Your task to perform on an android device: Add "beats solo 3" to the cart on target.com Image 0: 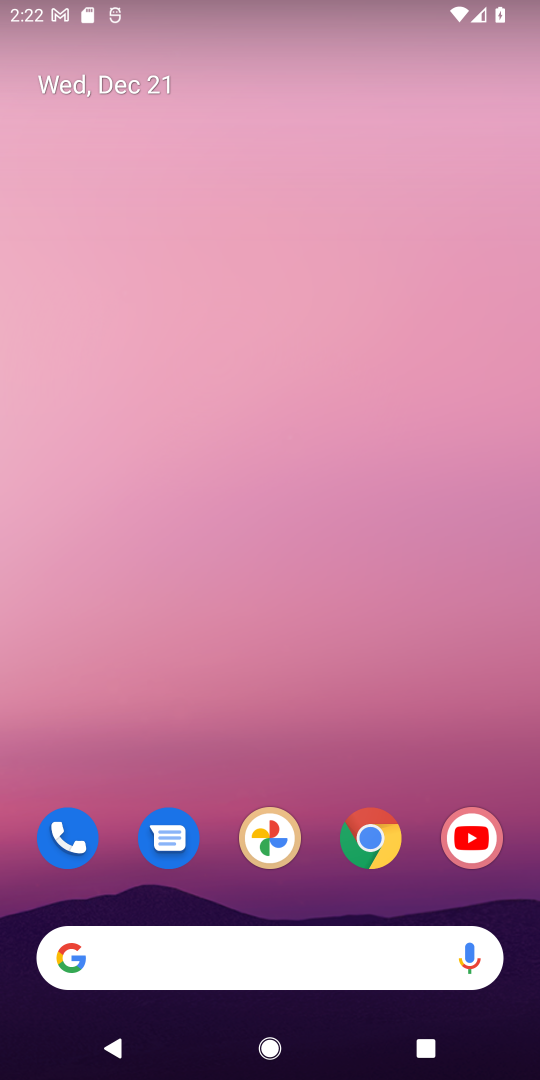
Step 0: click (366, 874)
Your task to perform on an android device: Add "beats solo 3" to the cart on target.com Image 1: 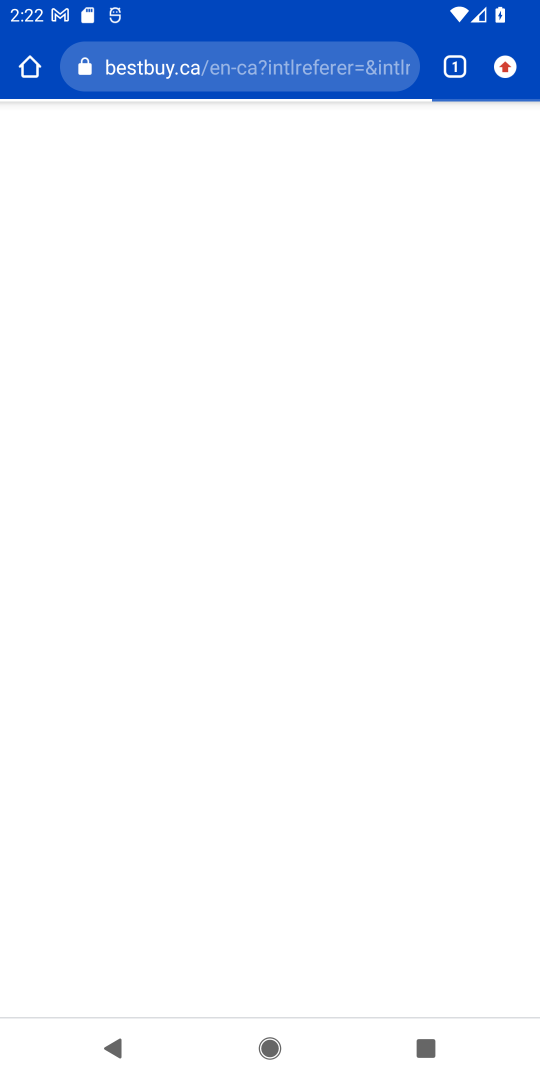
Step 1: click (261, 80)
Your task to perform on an android device: Add "beats solo 3" to the cart on target.com Image 2: 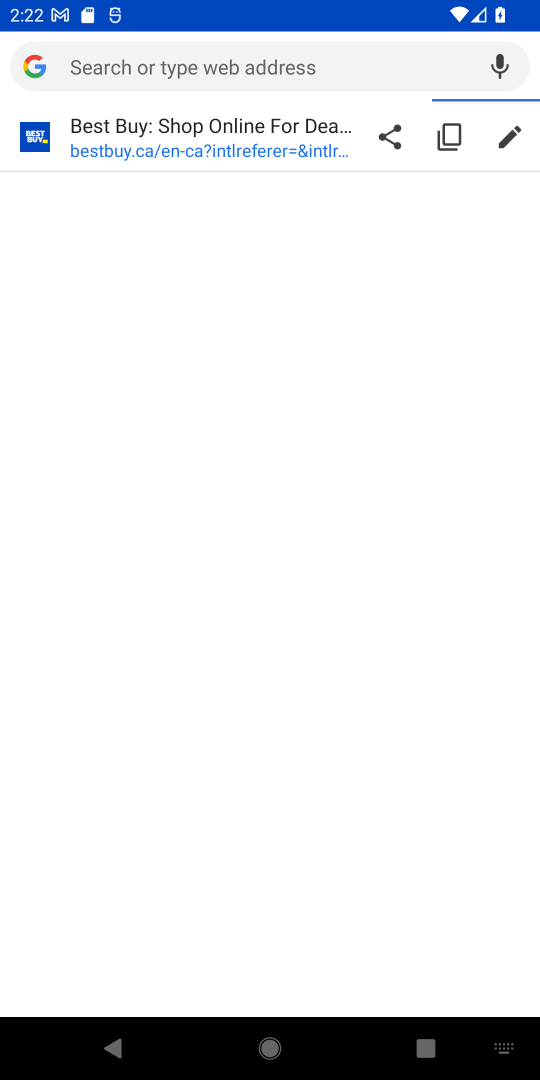
Step 2: type "target"
Your task to perform on an android device: Add "beats solo 3" to the cart on target.com Image 3: 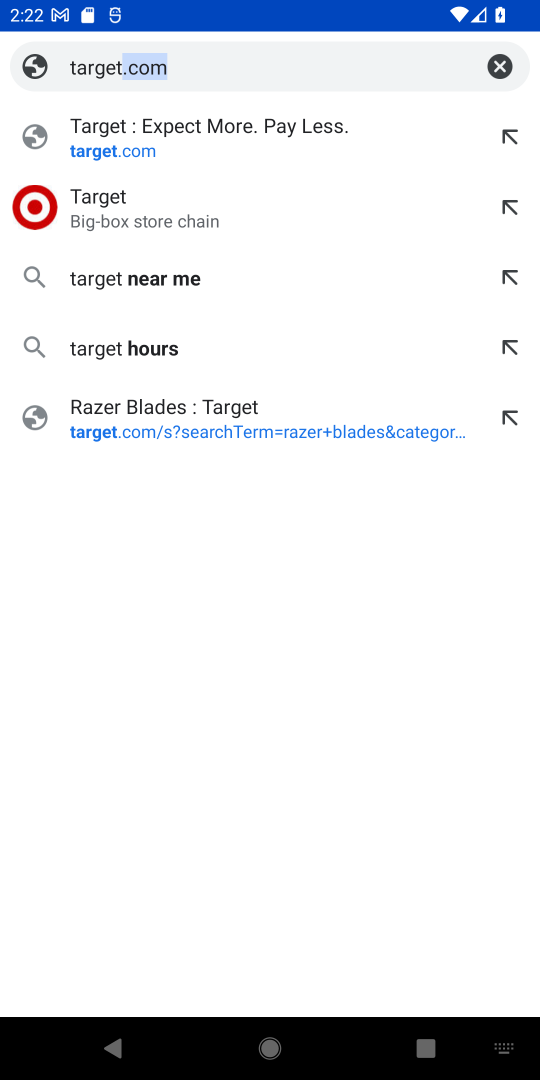
Step 3: click (114, 189)
Your task to perform on an android device: Add "beats solo 3" to the cart on target.com Image 4: 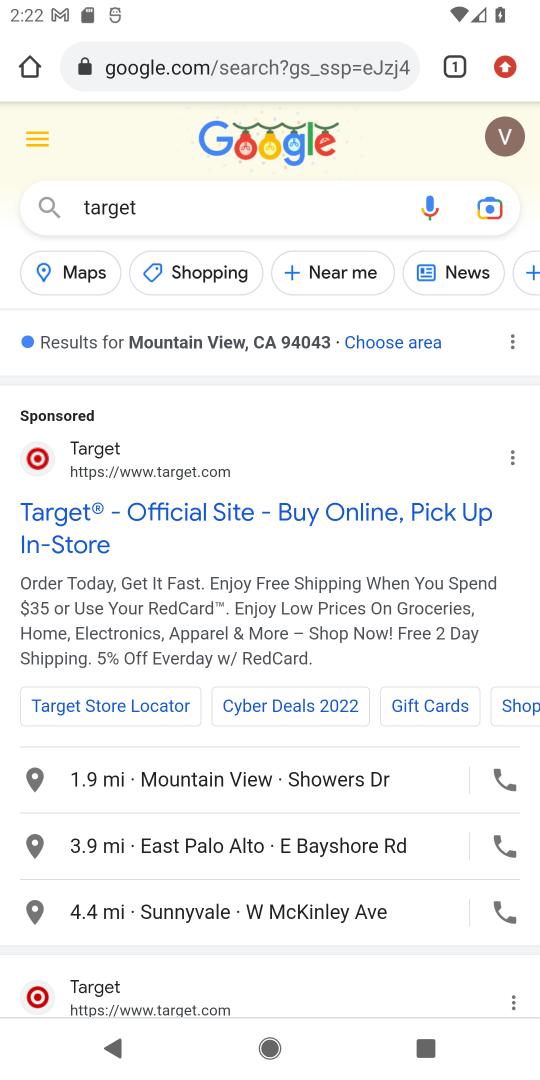
Step 4: click (107, 507)
Your task to perform on an android device: Add "beats solo 3" to the cart on target.com Image 5: 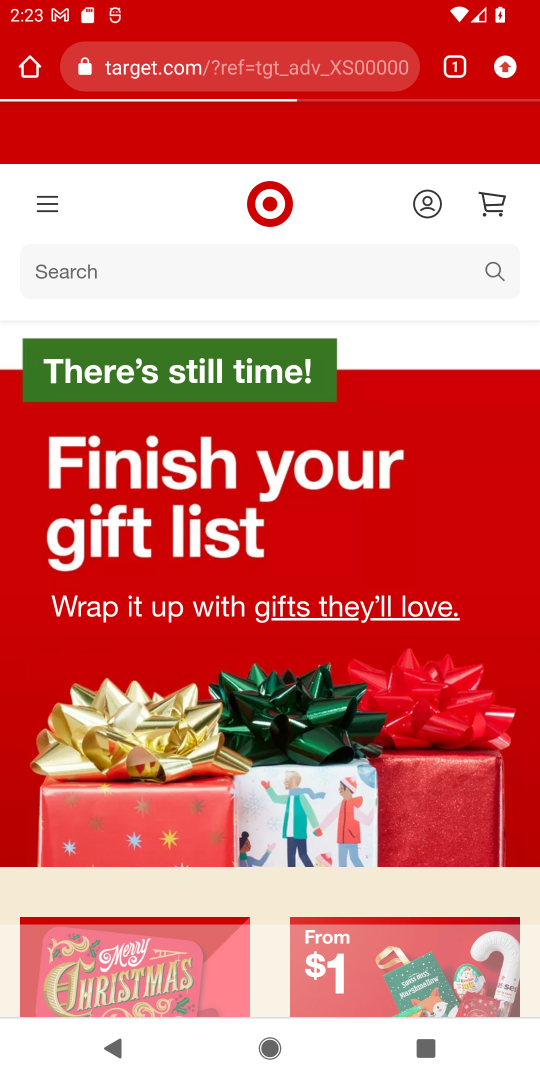
Step 5: click (164, 266)
Your task to perform on an android device: Add "beats solo 3" to the cart on target.com Image 6: 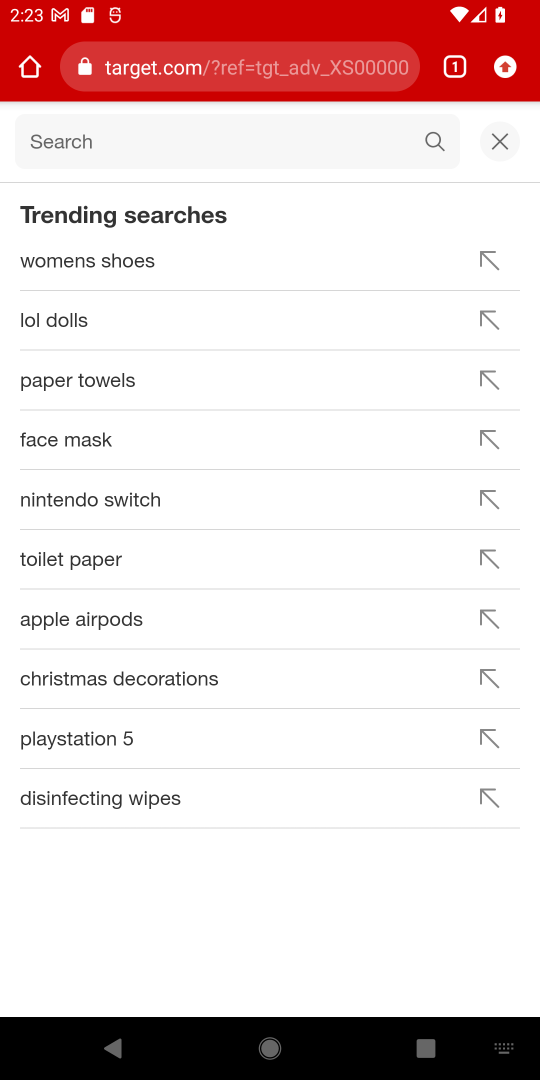
Step 6: type "beats solo 3"
Your task to perform on an android device: Add "beats solo 3" to the cart on target.com Image 7: 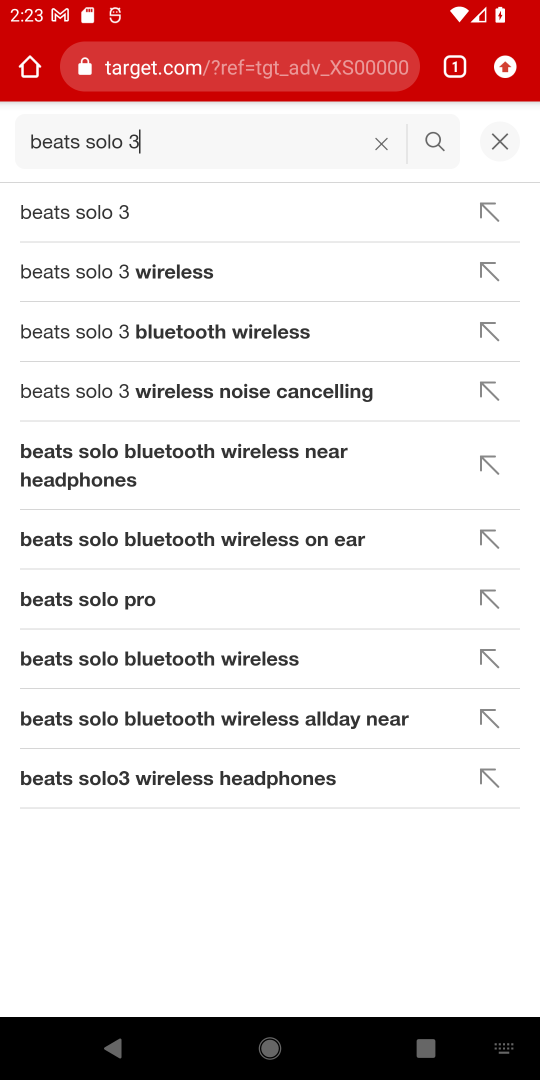
Step 7: click (135, 204)
Your task to perform on an android device: Add "beats solo 3" to the cart on target.com Image 8: 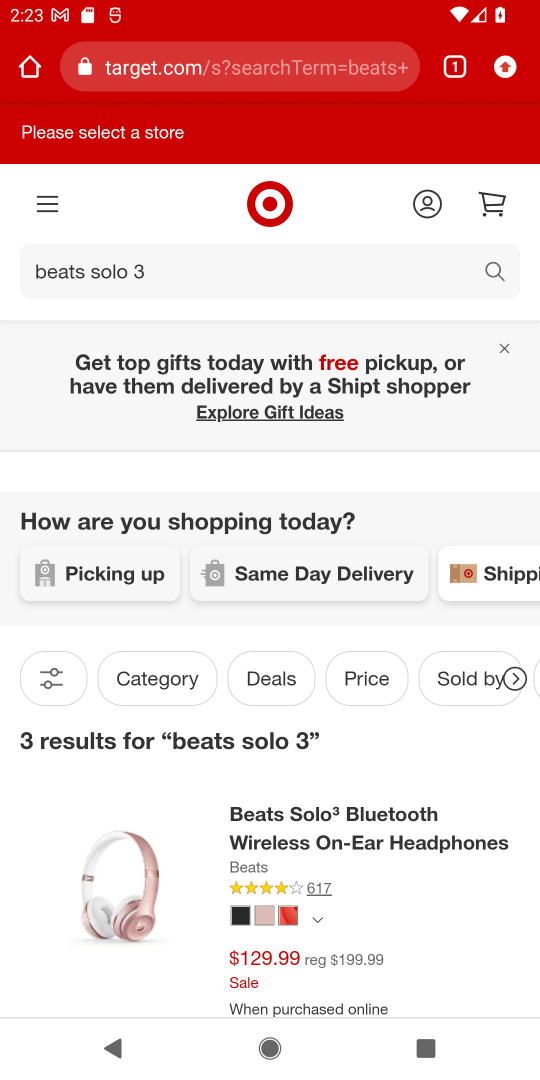
Step 8: click (270, 805)
Your task to perform on an android device: Add "beats solo 3" to the cart on target.com Image 9: 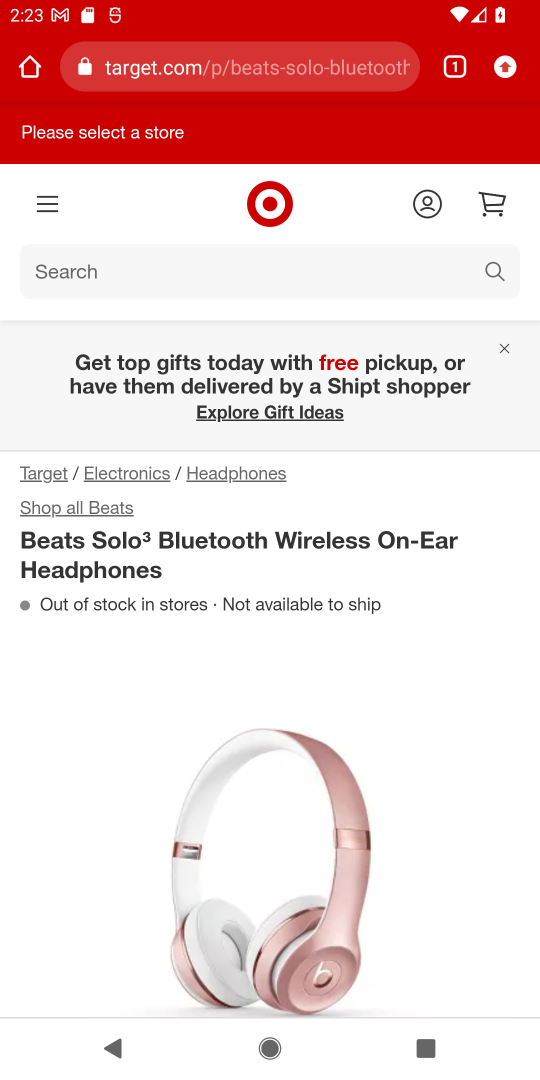
Step 9: drag from (356, 899) to (324, 404)
Your task to perform on an android device: Add "beats solo 3" to the cart on target.com Image 10: 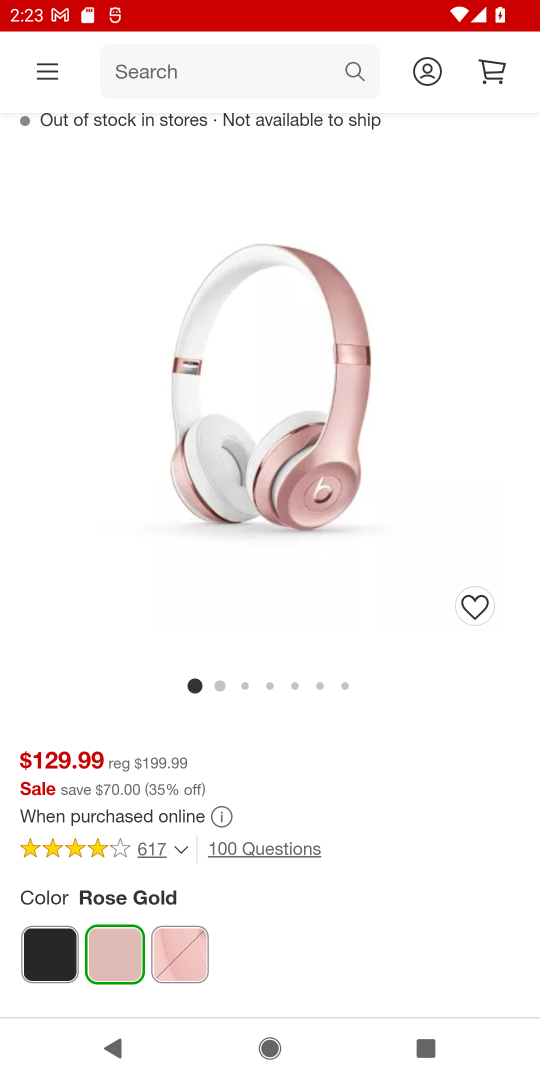
Step 10: drag from (340, 908) to (312, 439)
Your task to perform on an android device: Add "beats solo 3" to the cart on target.com Image 11: 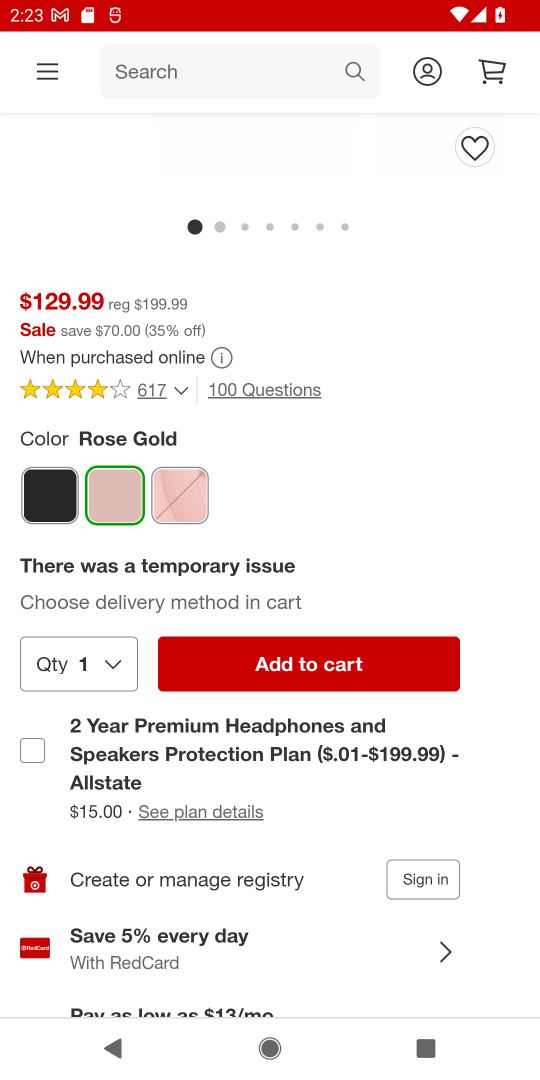
Step 11: click (343, 679)
Your task to perform on an android device: Add "beats solo 3" to the cart on target.com Image 12: 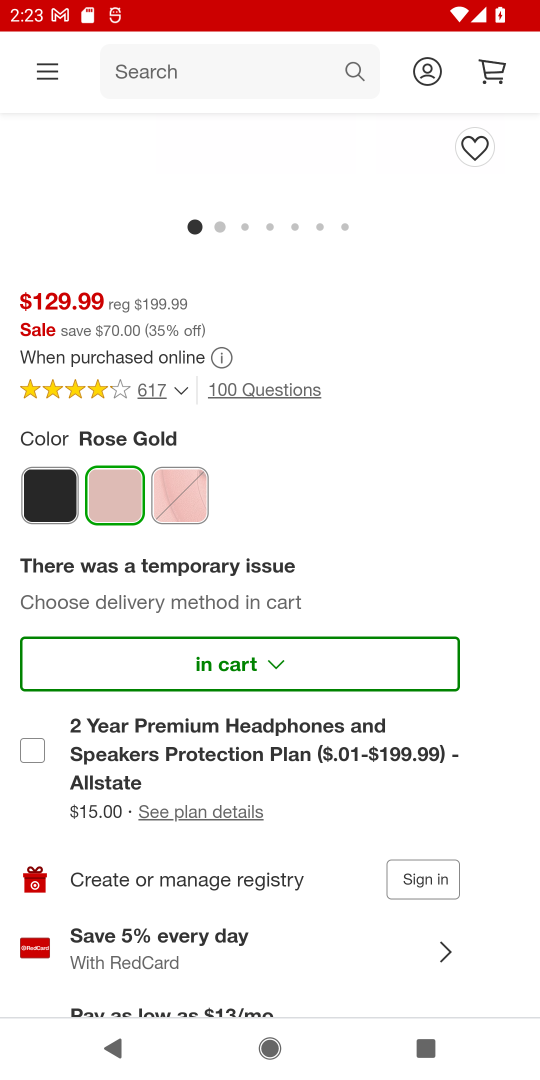
Step 12: task complete